Your task to perform on an android device: open device folders in google photos Image 0: 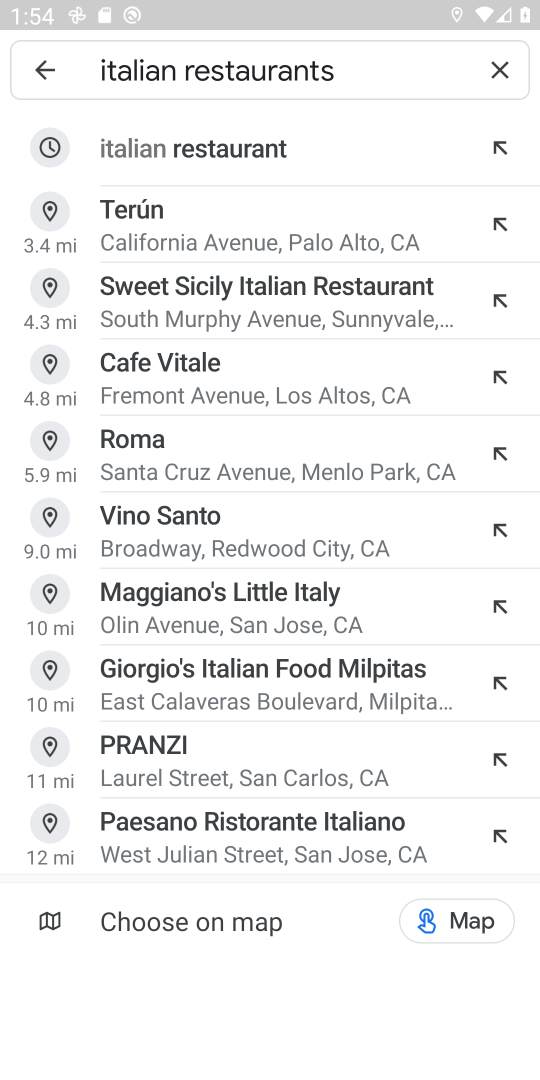
Step 0: press home button
Your task to perform on an android device: open device folders in google photos Image 1: 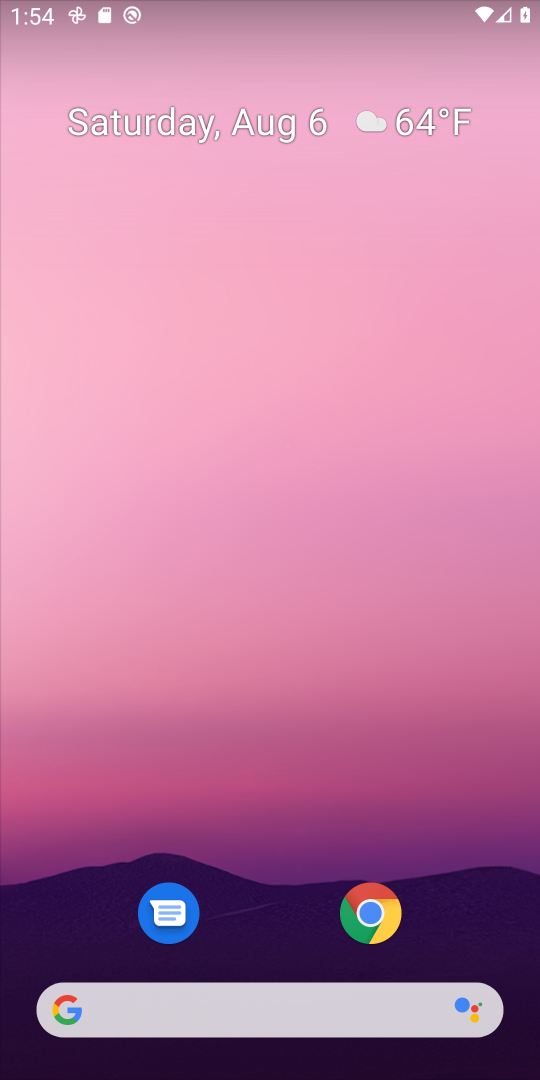
Step 1: drag from (440, 885) to (475, 214)
Your task to perform on an android device: open device folders in google photos Image 2: 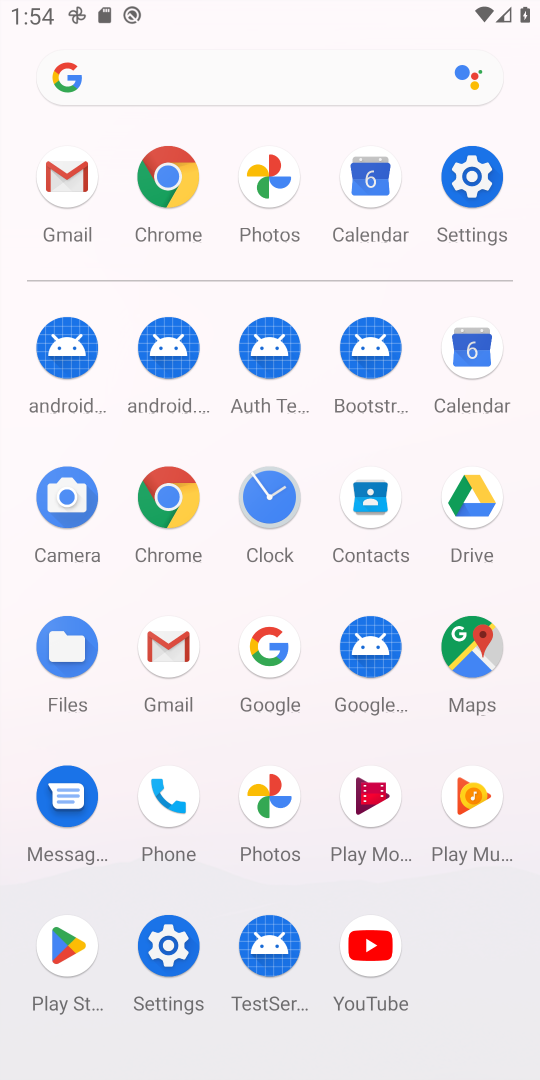
Step 2: click (273, 799)
Your task to perform on an android device: open device folders in google photos Image 3: 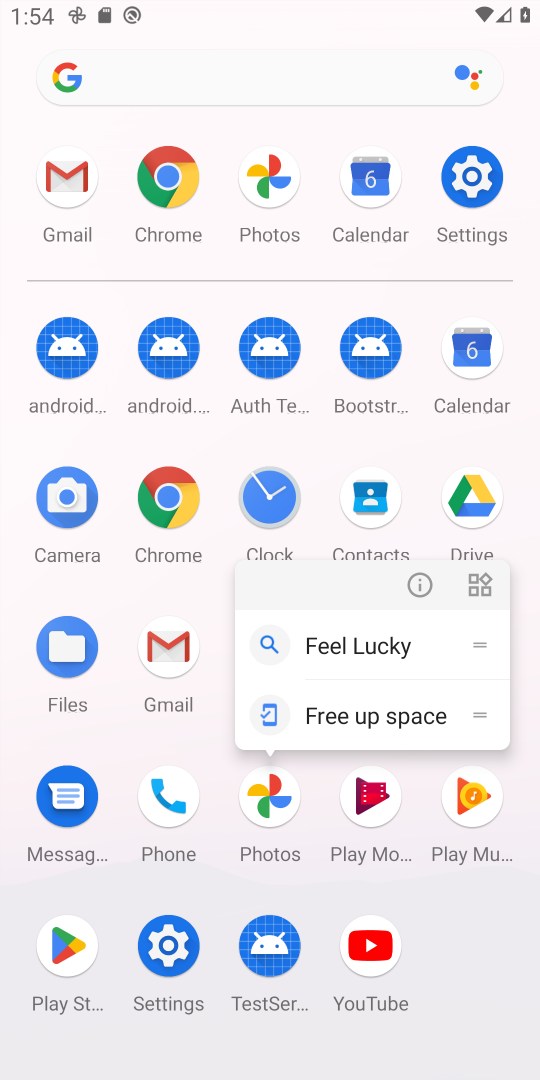
Step 3: click (273, 799)
Your task to perform on an android device: open device folders in google photos Image 4: 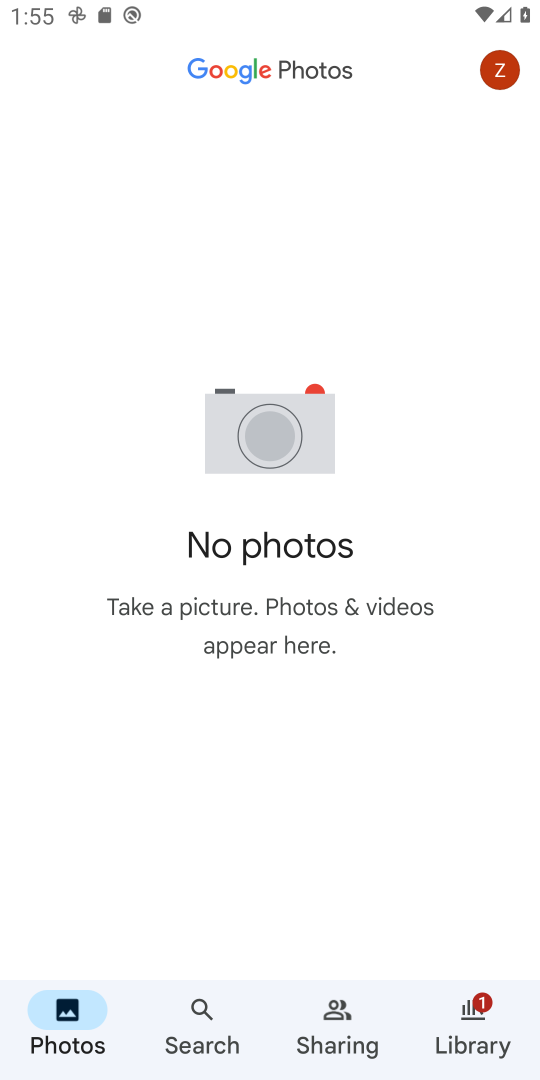
Step 4: click (461, 1020)
Your task to perform on an android device: open device folders in google photos Image 5: 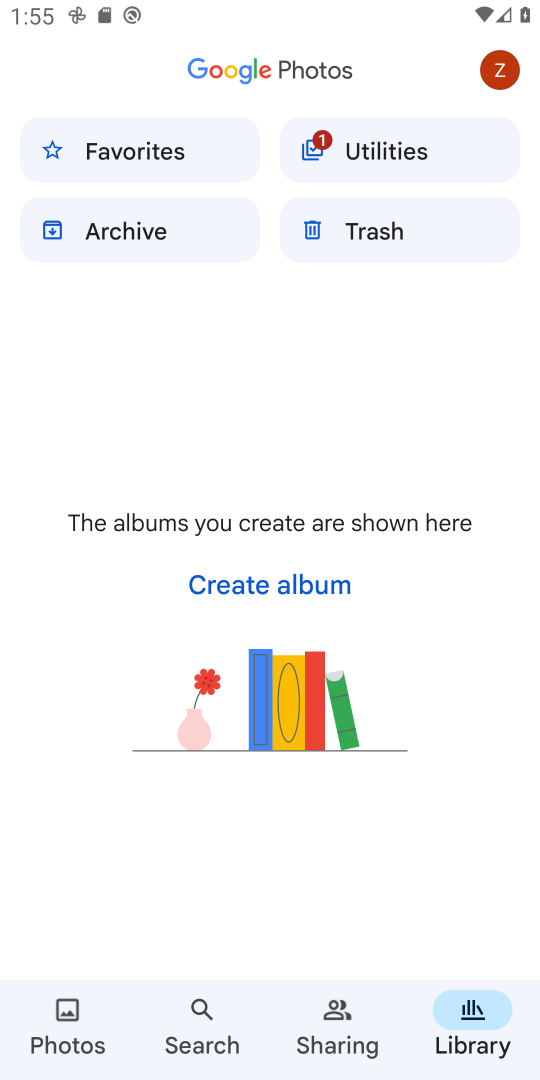
Step 5: task complete